Your task to perform on an android device: open a bookmark in the chrome app Image 0: 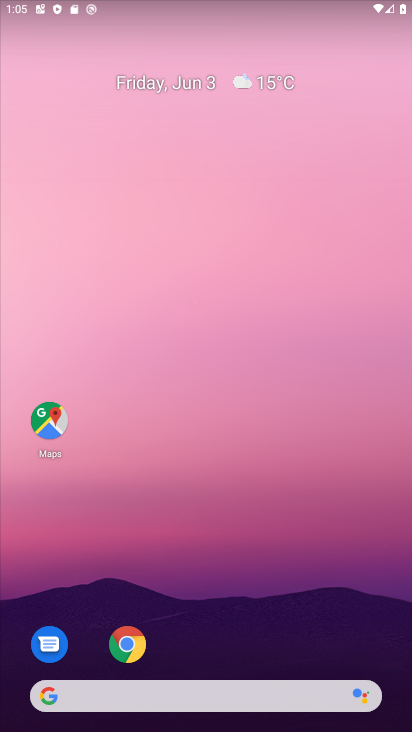
Step 0: click (125, 636)
Your task to perform on an android device: open a bookmark in the chrome app Image 1: 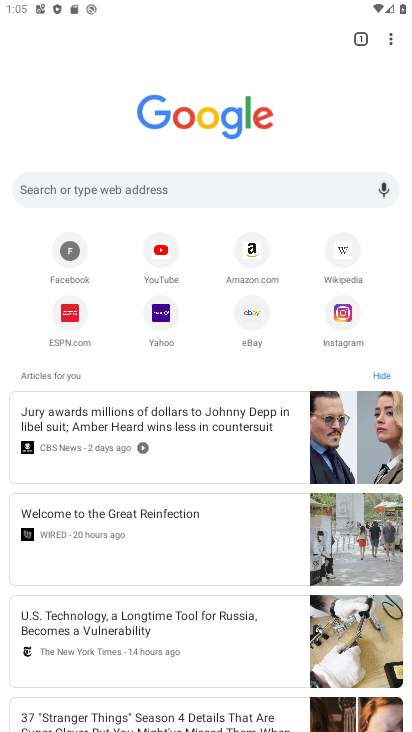
Step 1: click (392, 29)
Your task to perform on an android device: open a bookmark in the chrome app Image 2: 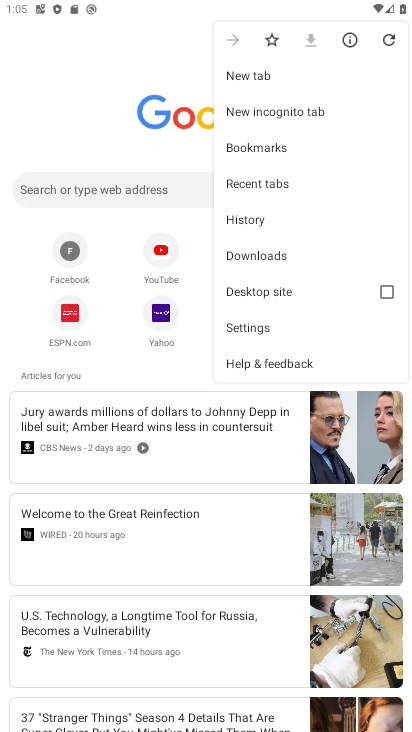
Step 2: click (263, 150)
Your task to perform on an android device: open a bookmark in the chrome app Image 3: 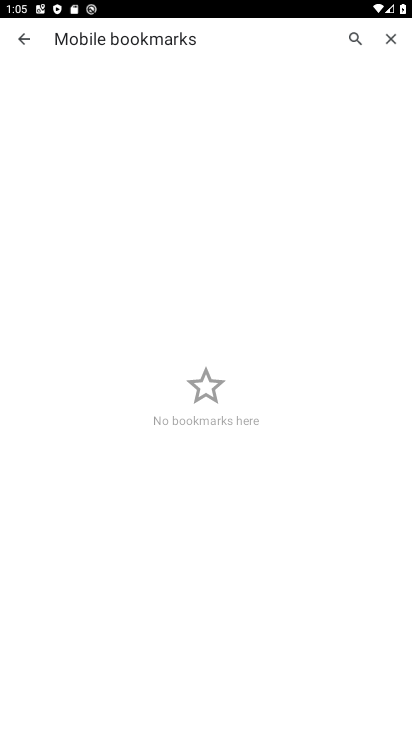
Step 3: task complete